Your task to perform on an android device: find which apps use the phone's location Image 0: 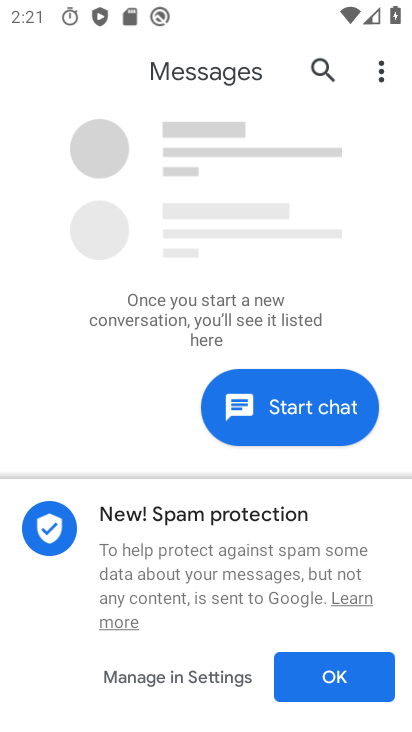
Step 0: press home button
Your task to perform on an android device: find which apps use the phone's location Image 1: 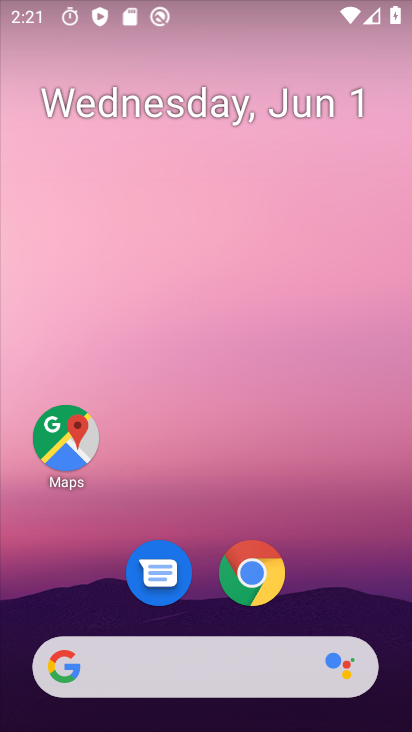
Step 1: drag from (184, 613) to (223, 230)
Your task to perform on an android device: find which apps use the phone's location Image 2: 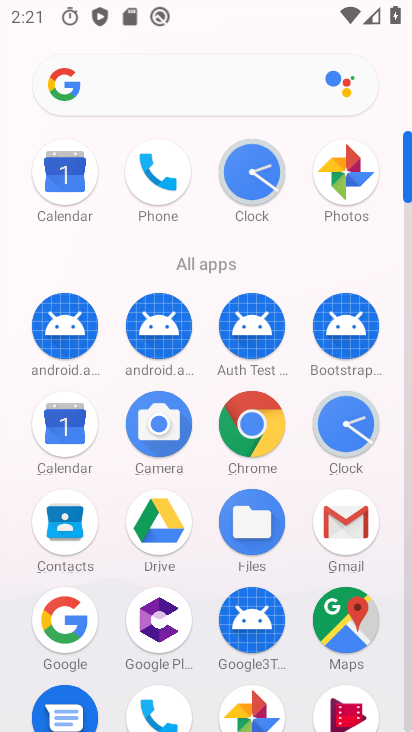
Step 2: drag from (98, 618) to (127, 267)
Your task to perform on an android device: find which apps use the phone's location Image 3: 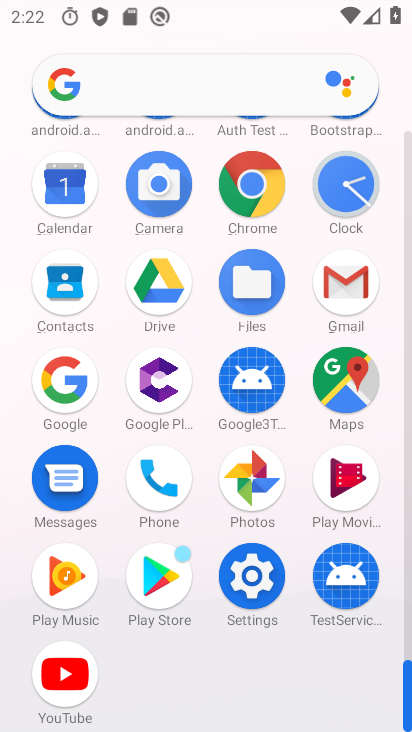
Step 3: click (226, 589)
Your task to perform on an android device: find which apps use the phone's location Image 4: 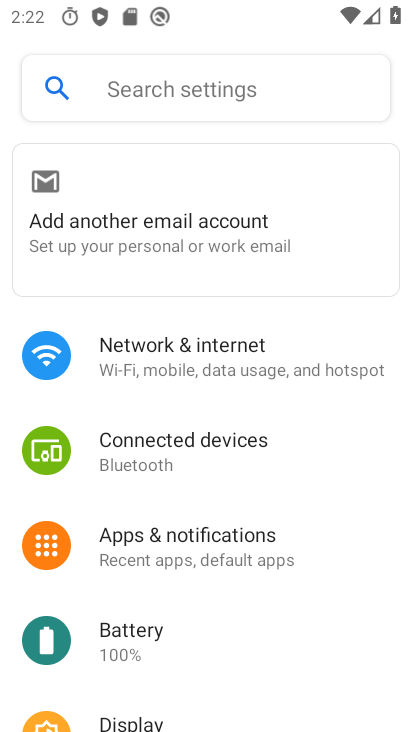
Step 4: drag from (212, 651) to (226, 316)
Your task to perform on an android device: find which apps use the phone's location Image 5: 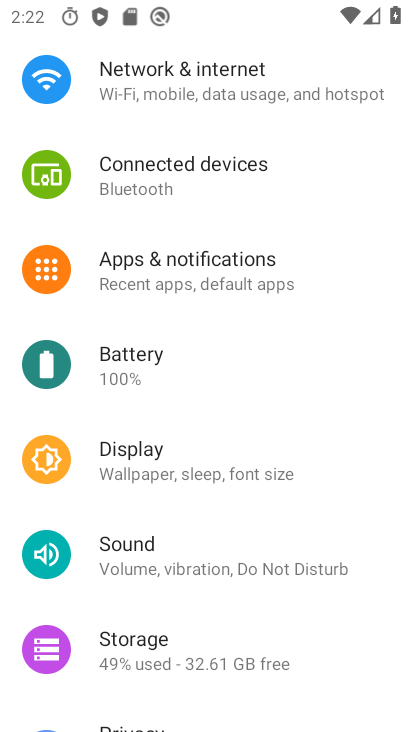
Step 5: drag from (210, 630) to (188, 329)
Your task to perform on an android device: find which apps use the phone's location Image 6: 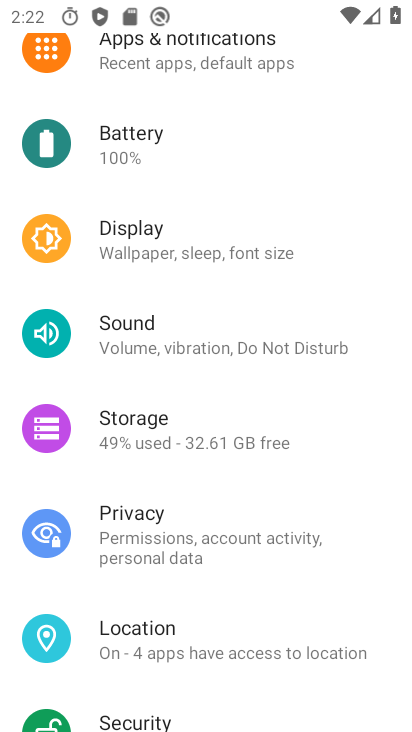
Step 6: click (200, 624)
Your task to perform on an android device: find which apps use the phone's location Image 7: 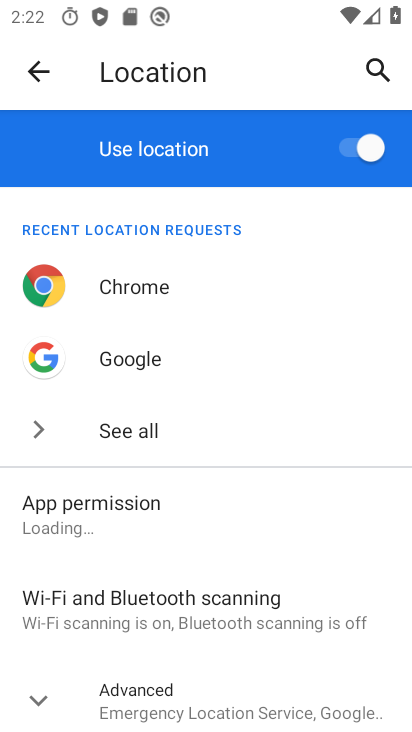
Step 7: drag from (218, 620) to (235, 399)
Your task to perform on an android device: find which apps use the phone's location Image 8: 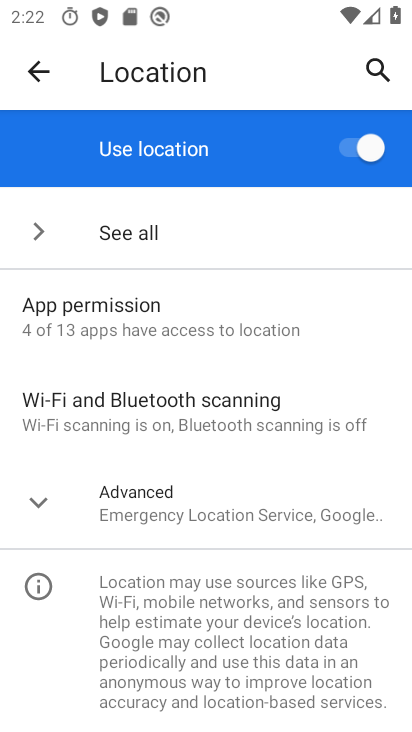
Step 8: click (52, 323)
Your task to perform on an android device: find which apps use the phone's location Image 9: 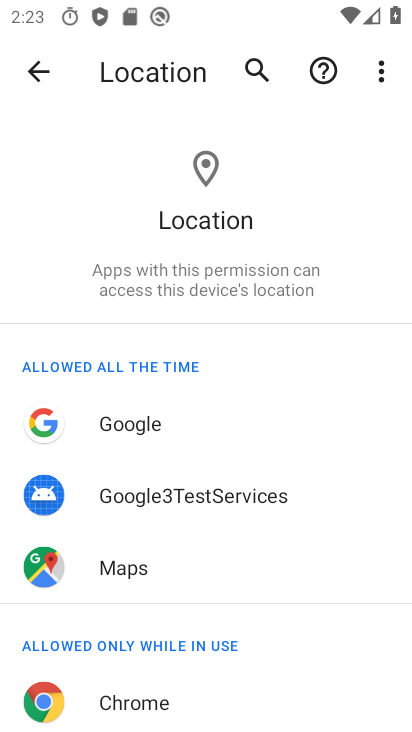
Step 9: task complete